Your task to perform on an android device: turn off location history Image 0: 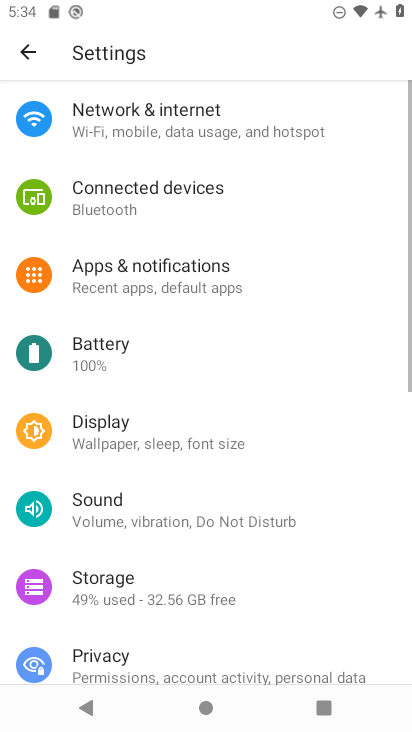
Step 0: drag from (125, 597) to (99, 164)
Your task to perform on an android device: turn off location history Image 1: 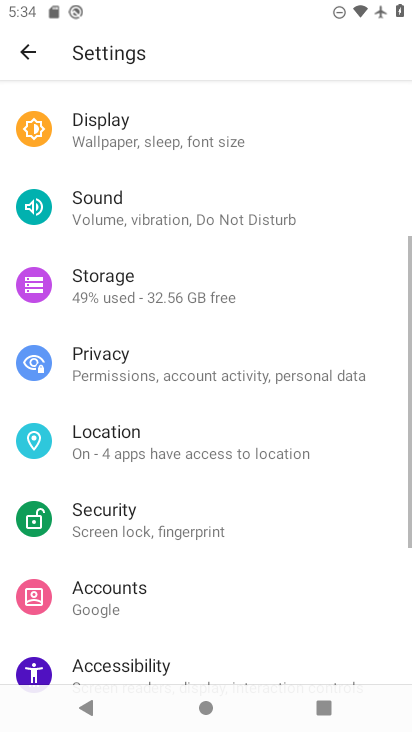
Step 1: drag from (143, 550) to (144, 215)
Your task to perform on an android device: turn off location history Image 2: 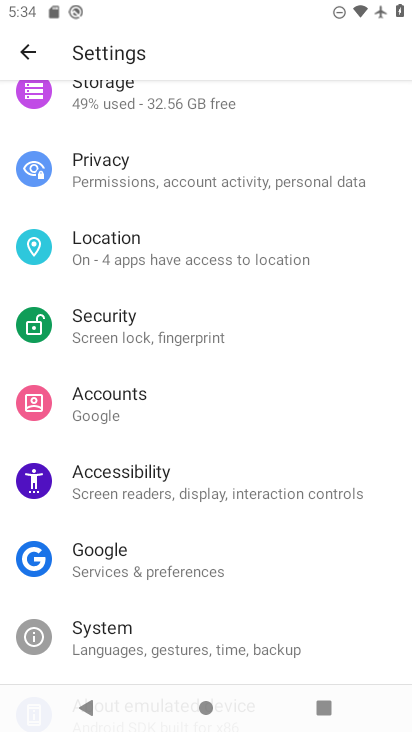
Step 2: click (121, 268)
Your task to perform on an android device: turn off location history Image 3: 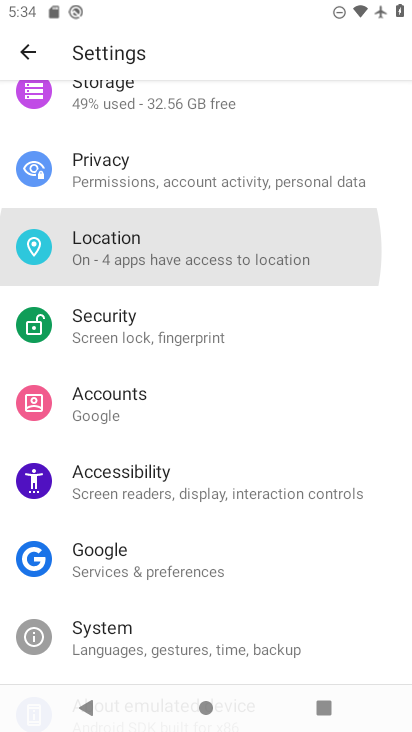
Step 3: click (120, 267)
Your task to perform on an android device: turn off location history Image 4: 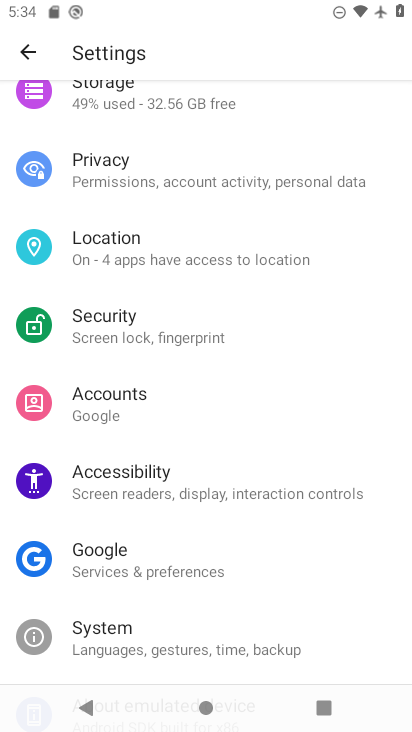
Step 4: click (119, 266)
Your task to perform on an android device: turn off location history Image 5: 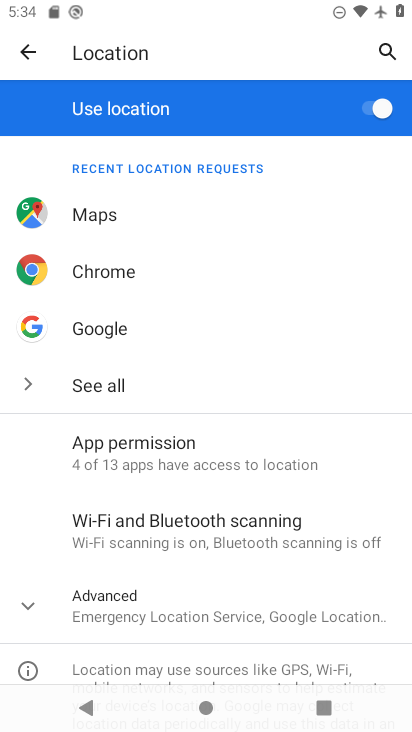
Step 5: drag from (228, 503) to (221, 218)
Your task to perform on an android device: turn off location history Image 6: 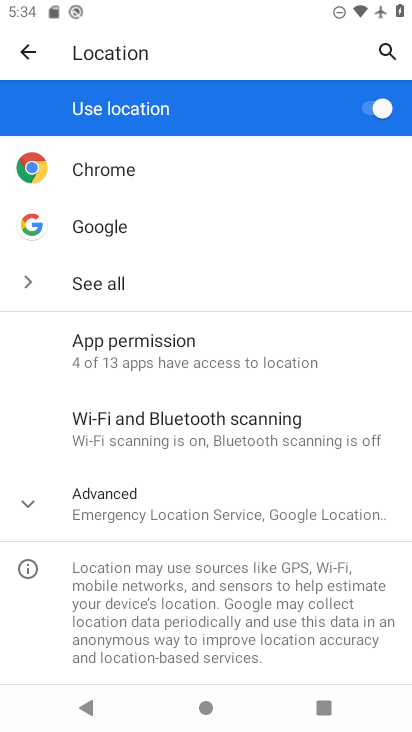
Step 6: click (179, 492)
Your task to perform on an android device: turn off location history Image 7: 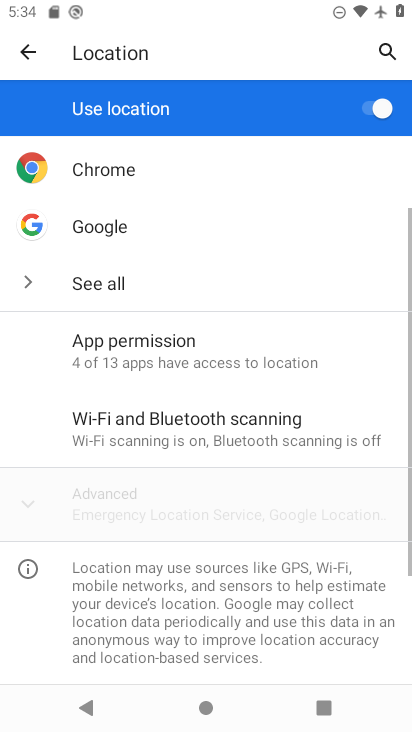
Step 7: click (182, 510)
Your task to perform on an android device: turn off location history Image 8: 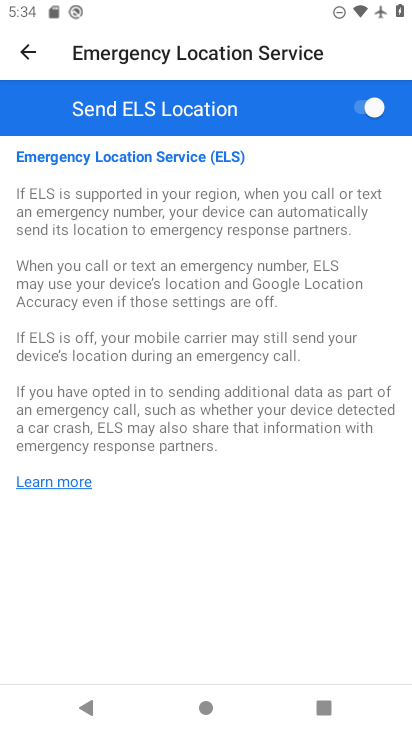
Step 8: click (29, 56)
Your task to perform on an android device: turn off location history Image 9: 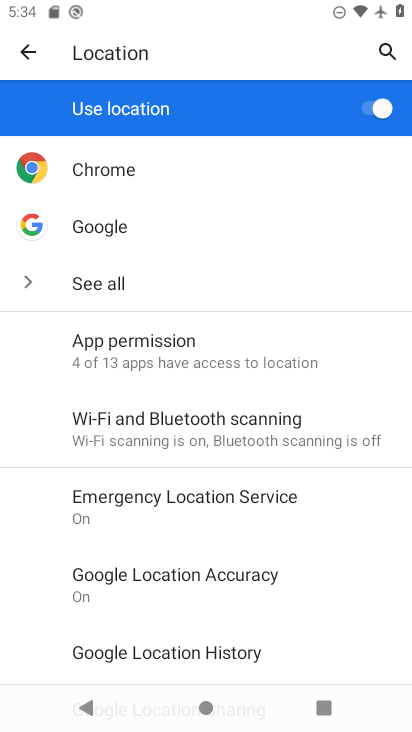
Step 9: click (167, 644)
Your task to perform on an android device: turn off location history Image 10: 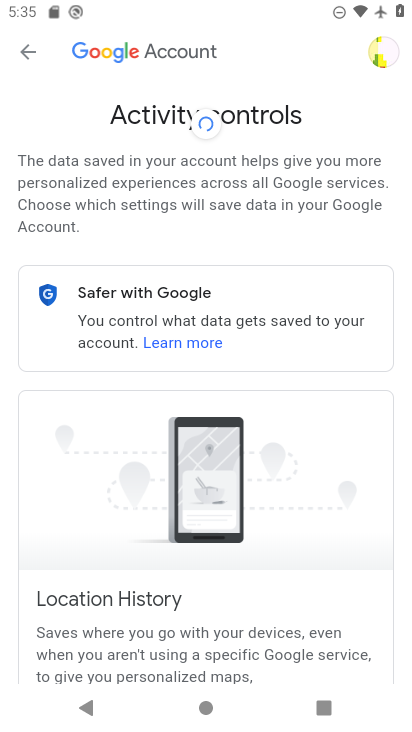
Step 10: drag from (202, 337) to (185, 132)
Your task to perform on an android device: turn off location history Image 11: 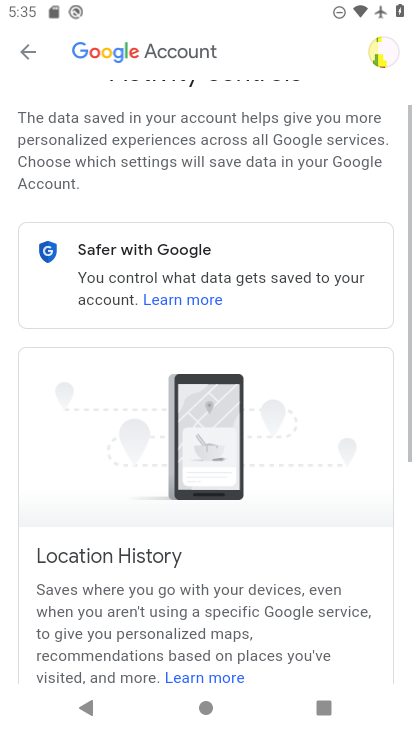
Step 11: drag from (222, 300) to (200, 144)
Your task to perform on an android device: turn off location history Image 12: 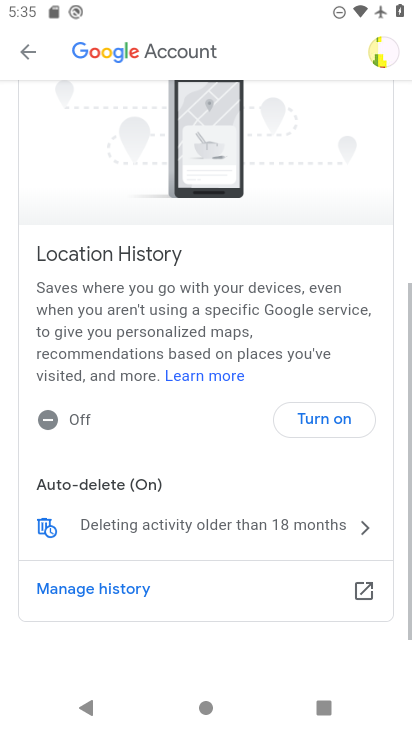
Step 12: drag from (219, 407) to (299, 147)
Your task to perform on an android device: turn off location history Image 13: 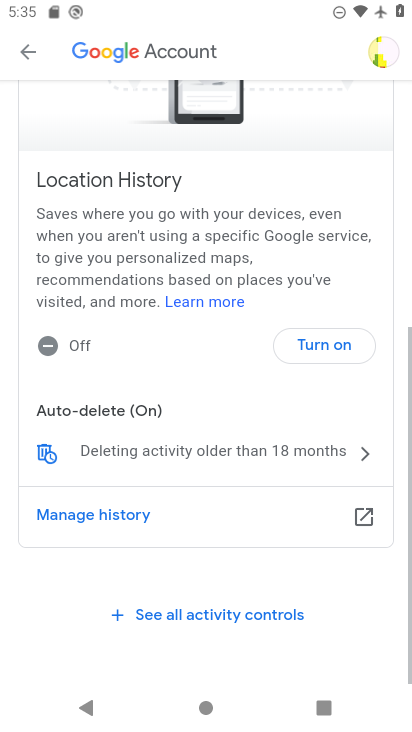
Step 13: drag from (298, 473) to (295, 150)
Your task to perform on an android device: turn off location history Image 14: 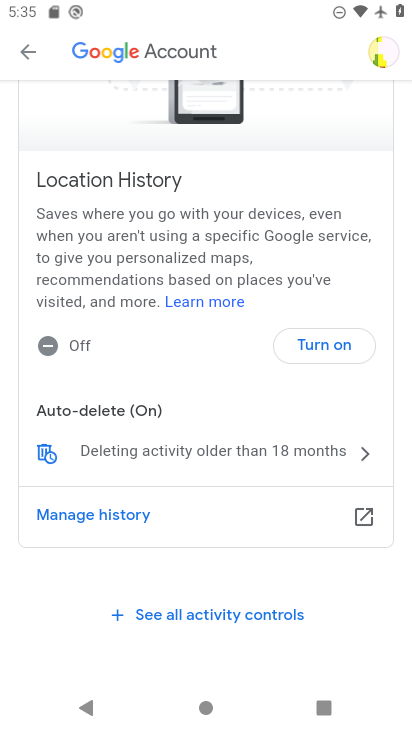
Step 14: click (336, 335)
Your task to perform on an android device: turn off location history Image 15: 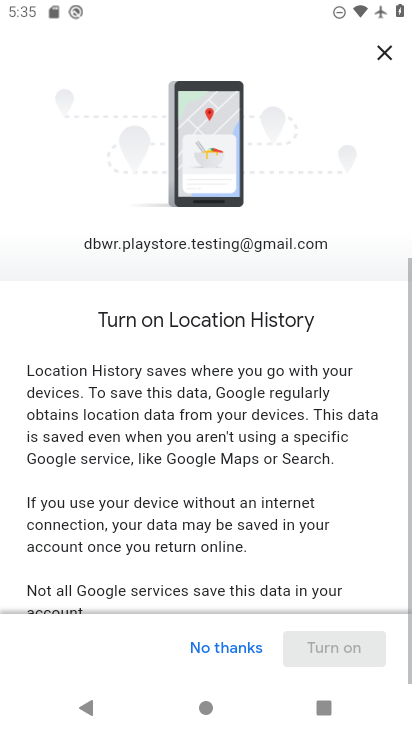
Step 15: task complete